Your task to perform on an android device: add a contact in the contacts app Image 0: 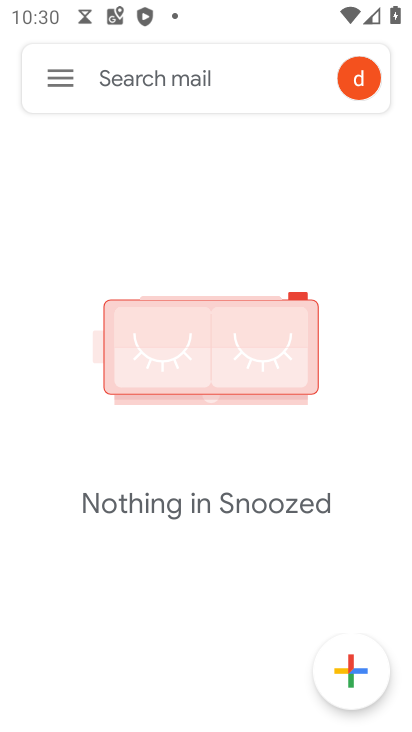
Step 0: press back button
Your task to perform on an android device: add a contact in the contacts app Image 1: 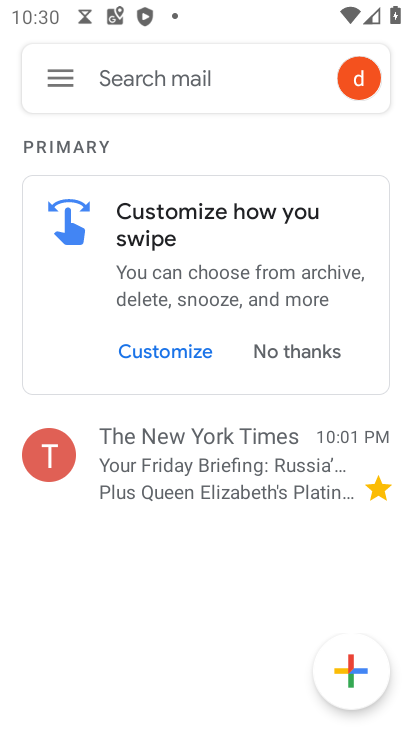
Step 1: press back button
Your task to perform on an android device: add a contact in the contacts app Image 2: 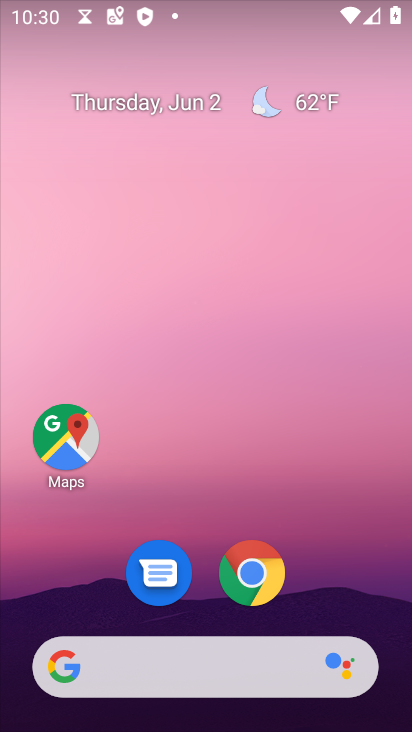
Step 2: drag from (340, 577) to (252, 156)
Your task to perform on an android device: add a contact in the contacts app Image 3: 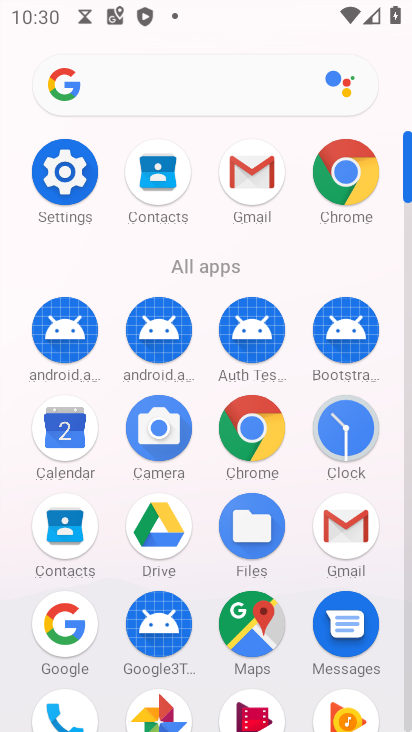
Step 3: click (63, 529)
Your task to perform on an android device: add a contact in the contacts app Image 4: 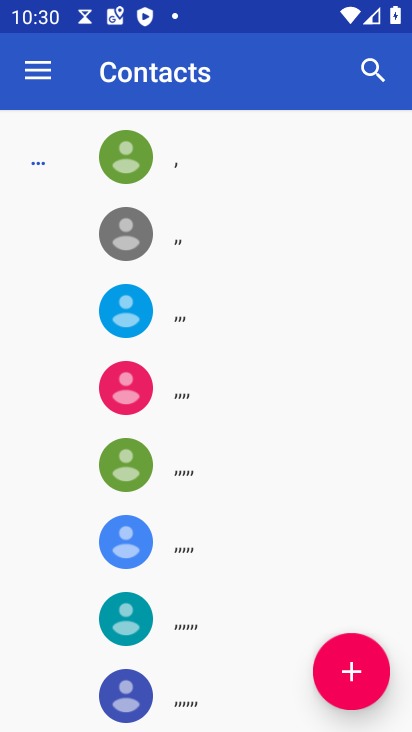
Step 4: click (353, 675)
Your task to perform on an android device: add a contact in the contacts app Image 5: 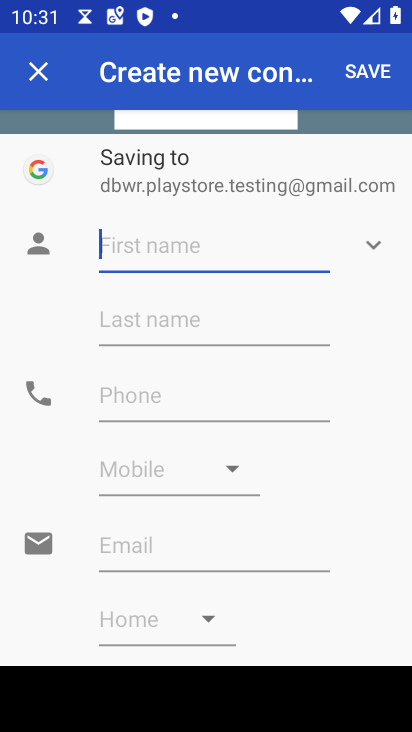
Step 5: type "Chandrasekhar"
Your task to perform on an android device: add a contact in the contacts app Image 6: 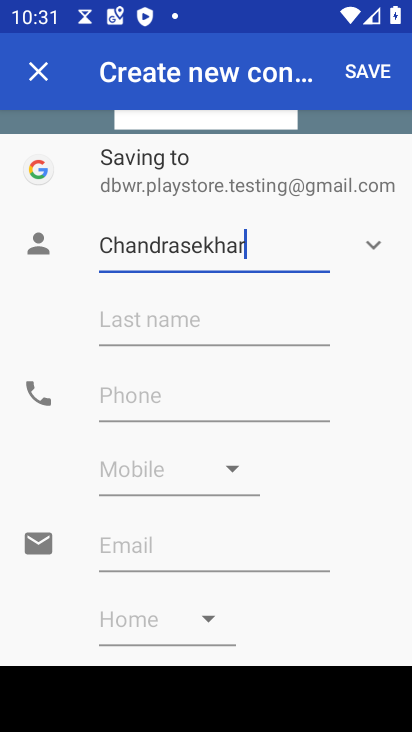
Step 6: click (225, 329)
Your task to perform on an android device: add a contact in the contacts app Image 7: 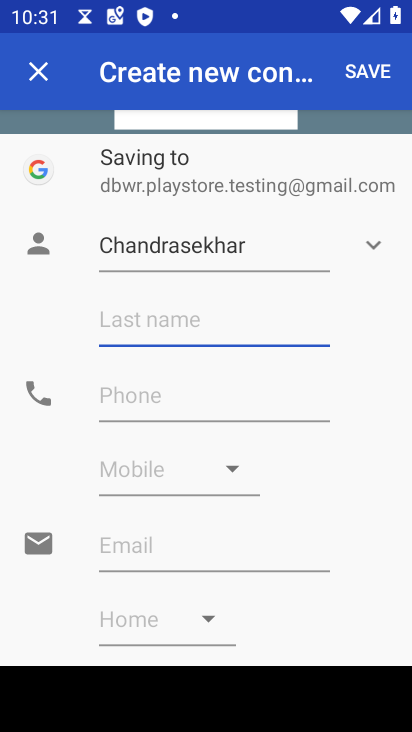
Step 7: type "sriramarao"
Your task to perform on an android device: add a contact in the contacts app Image 8: 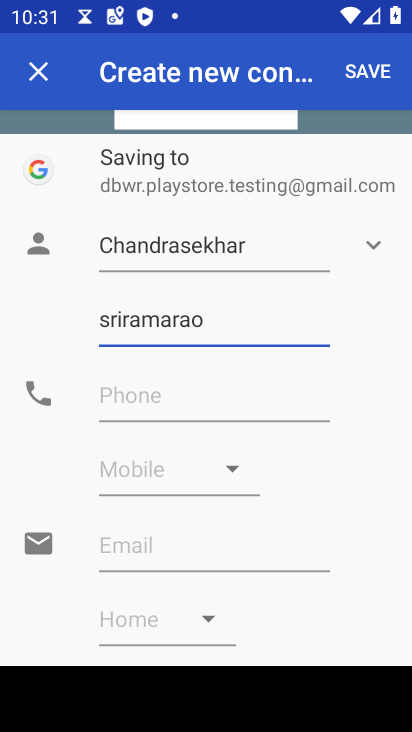
Step 8: click (194, 399)
Your task to perform on an android device: add a contact in the contacts app Image 9: 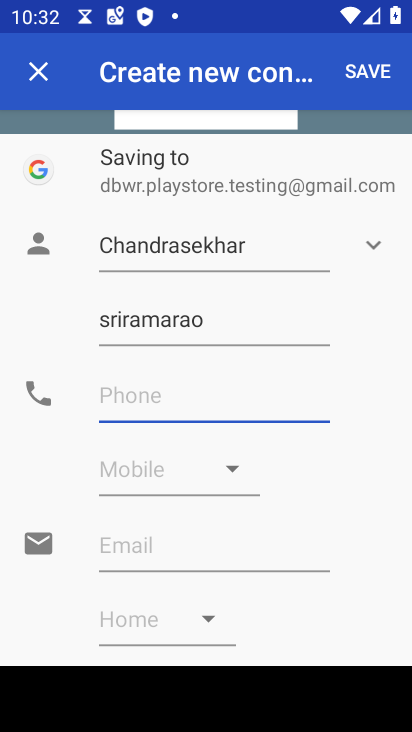
Step 9: type "09424015310"
Your task to perform on an android device: add a contact in the contacts app Image 10: 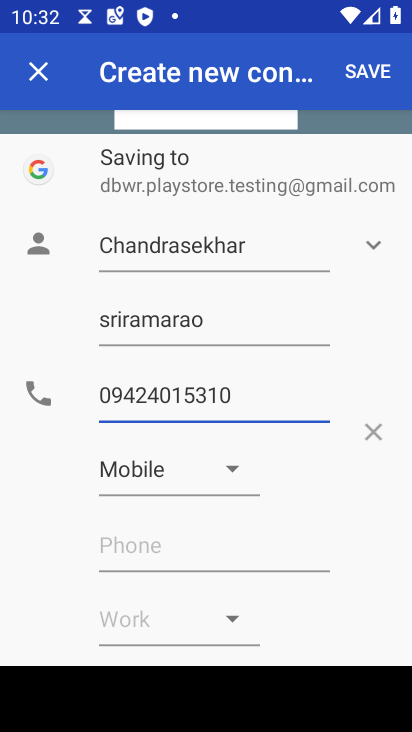
Step 10: click (381, 69)
Your task to perform on an android device: add a contact in the contacts app Image 11: 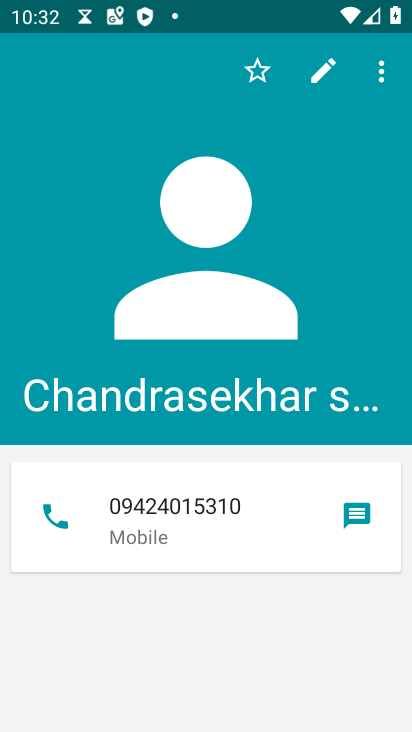
Step 11: task complete